Your task to perform on an android device: toggle priority inbox in the gmail app Image 0: 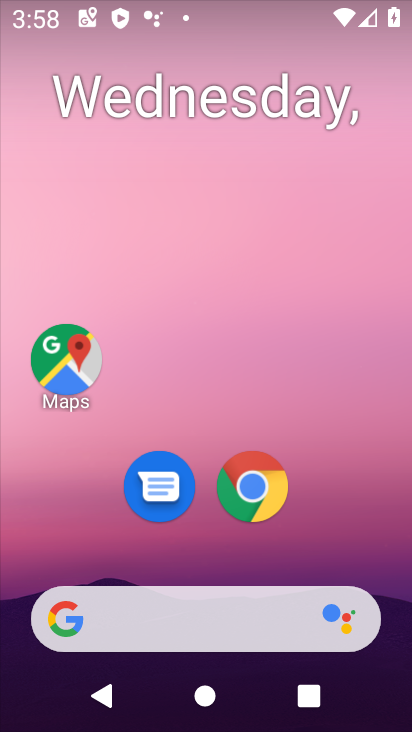
Step 0: drag from (285, 585) to (300, 286)
Your task to perform on an android device: toggle priority inbox in the gmail app Image 1: 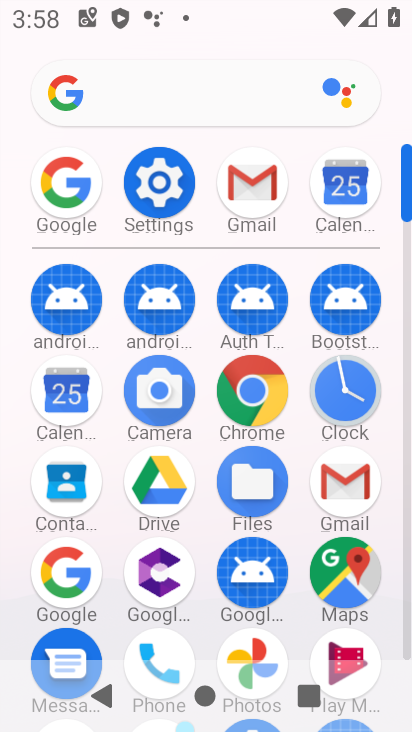
Step 1: click (168, 183)
Your task to perform on an android device: toggle priority inbox in the gmail app Image 2: 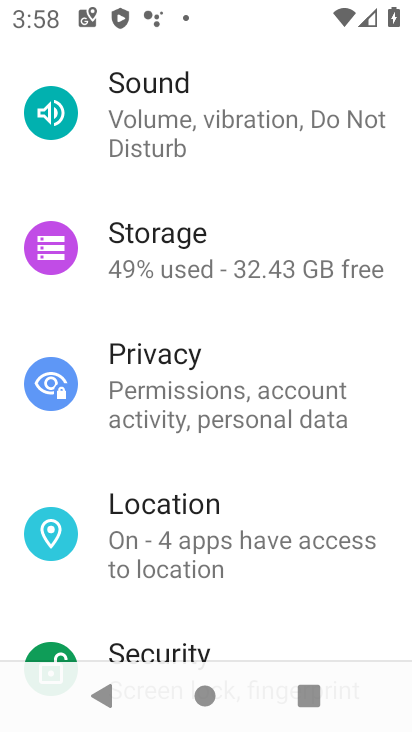
Step 2: drag from (239, 584) to (264, 470)
Your task to perform on an android device: toggle priority inbox in the gmail app Image 3: 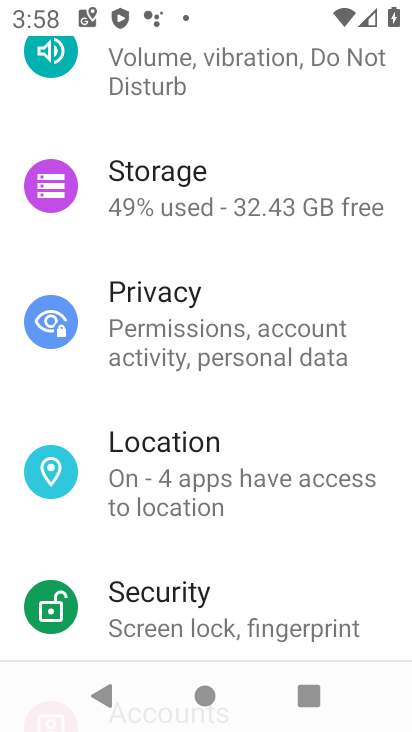
Step 3: drag from (182, 608) to (229, 209)
Your task to perform on an android device: toggle priority inbox in the gmail app Image 4: 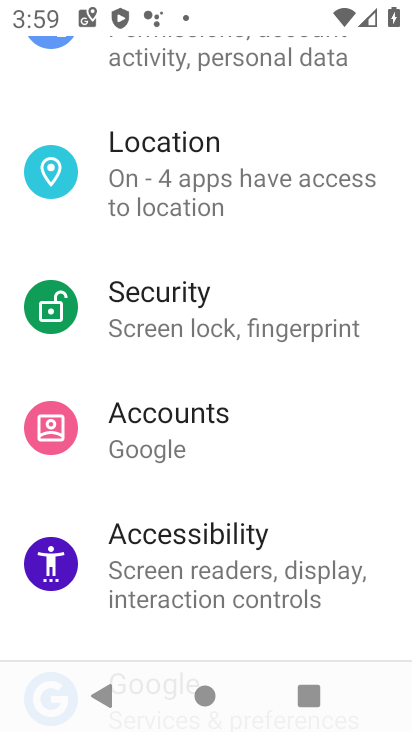
Step 4: drag from (188, 545) to (251, 253)
Your task to perform on an android device: toggle priority inbox in the gmail app Image 5: 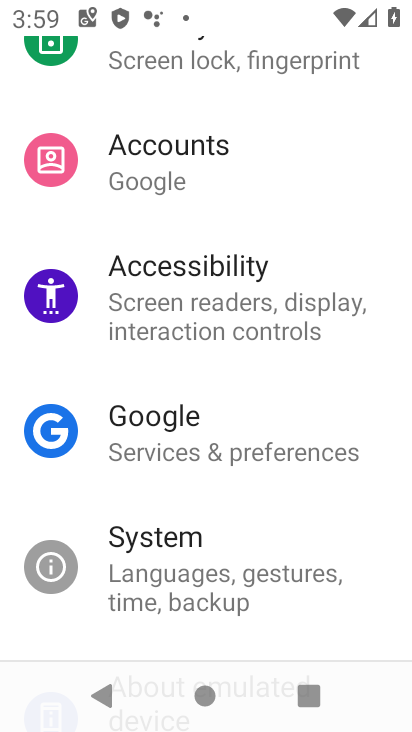
Step 5: drag from (169, 598) to (211, 339)
Your task to perform on an android device: toggle priority inbox in the gmail app Image 6: 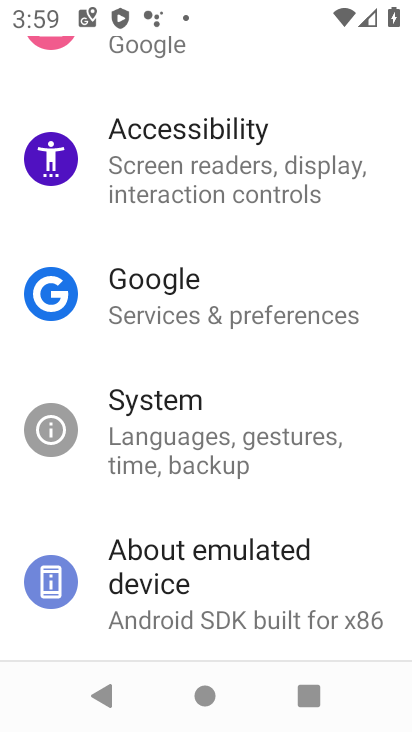
Step 6: press home button
Your task to perform on an android device: toggle priority inbox in the gmail app Image 7: 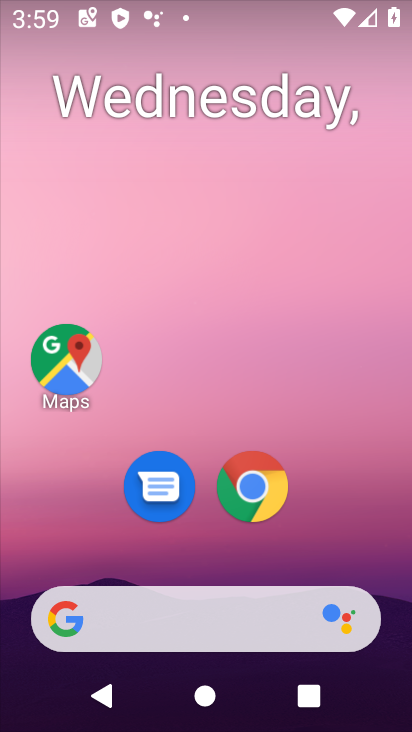
Step 7: drag from (199, 611) to (292, 222)
Your task to perform on an android device: toggle priority inbox in the gmail app Image 8: 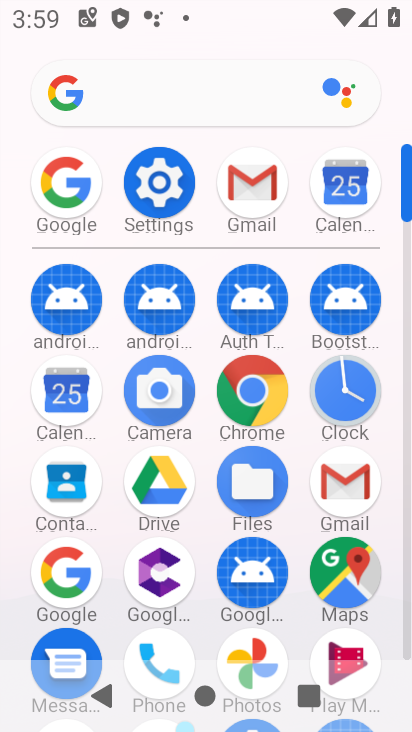
Step 8: click (73, 208)
Your task to perform on an android device: toggle priority inbox in the gmail app Image 9: 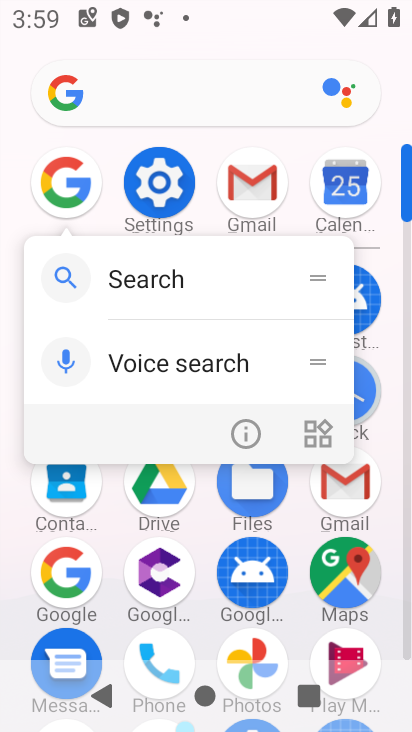
Step 9: click (20, 318)
Your task to perform on an android device: toggle priority inbox in the gmail app Image 10: 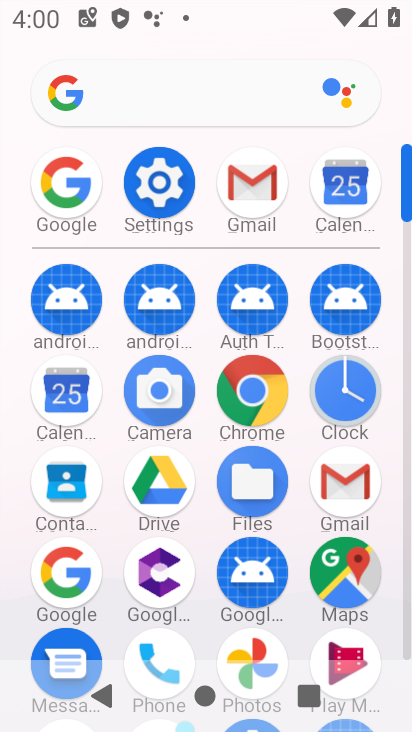
Step 10: click (337, 487)
Your task to perform on an android device: toggle priority inbox in the gmail app Image 11: 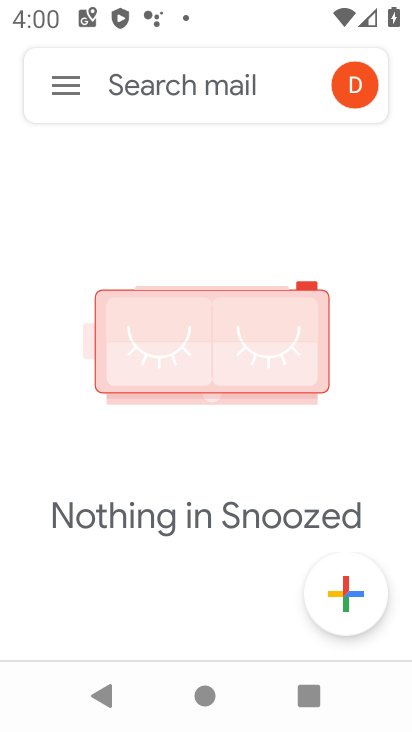
Step 11: click (43, 78)
Your task to perform on an android device: toggle priority inbox in the gmail app Image 12: 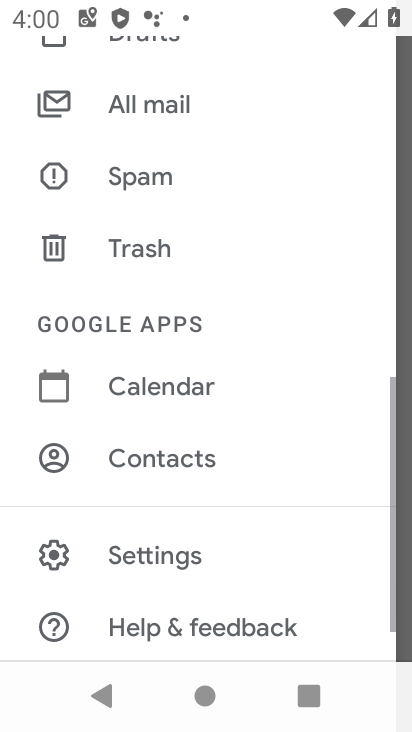
Step 12: click (164, 548)
Your task to perform on an android device: toggle priority inbox in the gmail app Image 13: 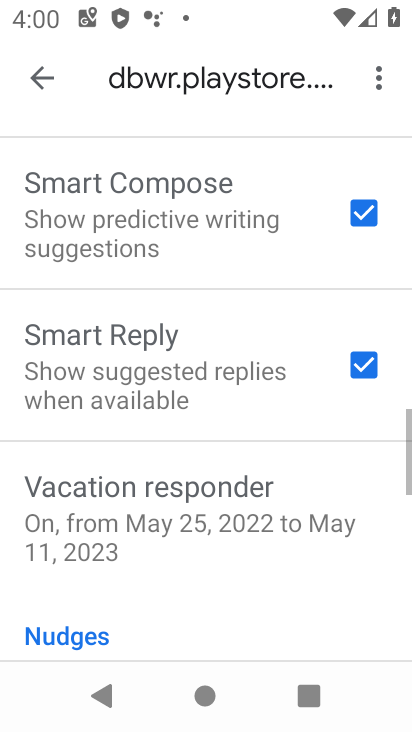
Step 13: drag from (146, 168) to (138, 717)
Your task to perform on an android device: toggle priority inbox in the gmail app Image 14: 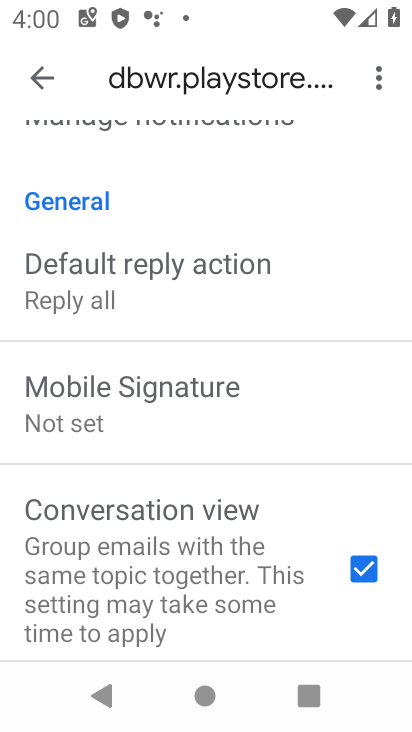
Step 14: drag from (185, 246) to (199, 726)
Your task to perform on an android device: toggle priority inbox in the gmail app Image 15: 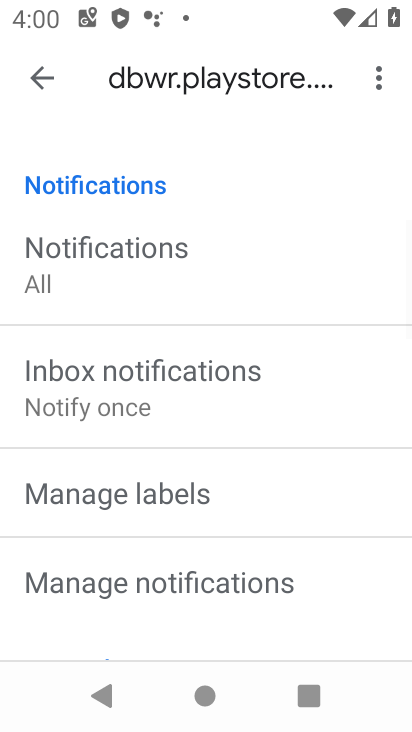
Step 15: drag from (183, 305) to (185, 727)
Your task to perform on an android device: toggle priority inbox in the gmail app Image 16: 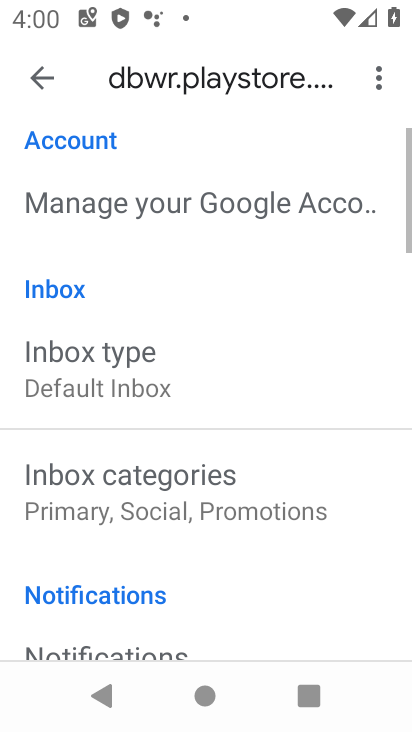
Step 16: click (117, 369)
Your task to perform on an android device: toggle priority inbox in the gmail app Image 17: 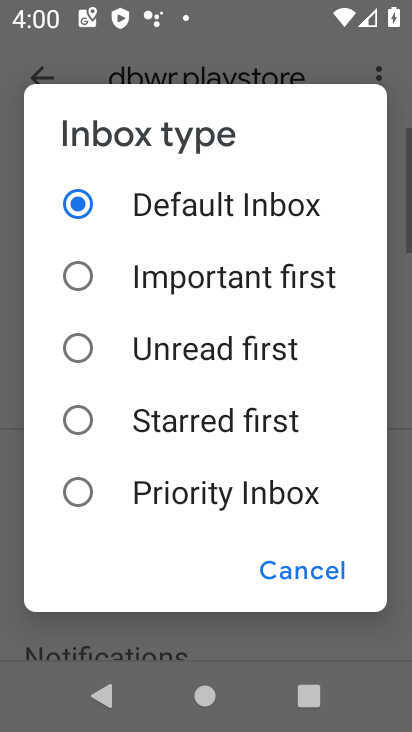
Step 17: click (142, 496)
Your task to perform on an android device: toggle priority inbox in the gmail app Image 18: 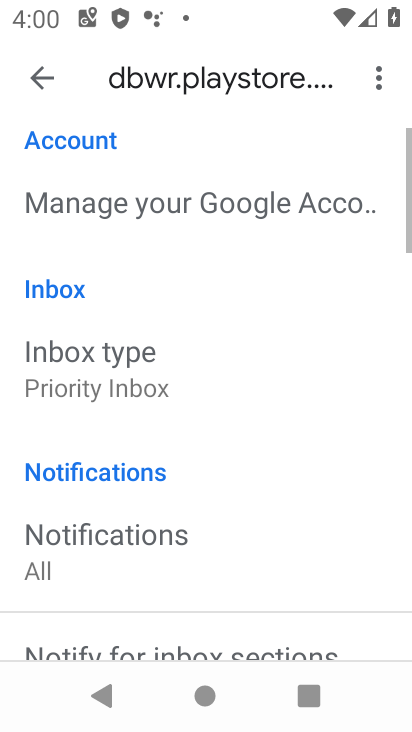
Step 18: task complete